Your task to perform on an android device: stop showing notifications on the lock screen Image 0: 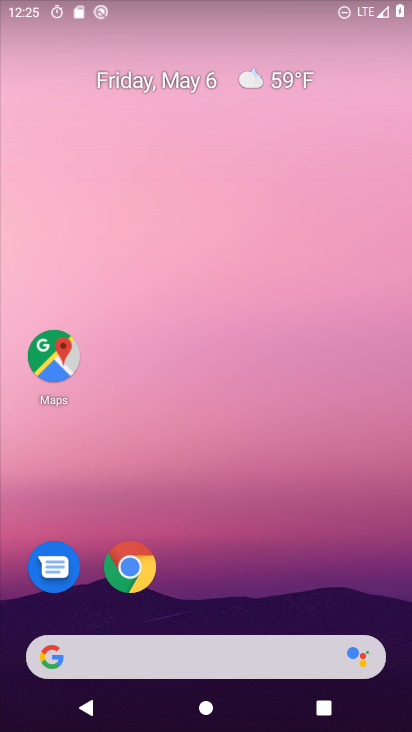
Step 0: drag from (362, 628) to (365, 11)
Your task to perform on an android device: stop showing notifications on the lock screen Image 1: 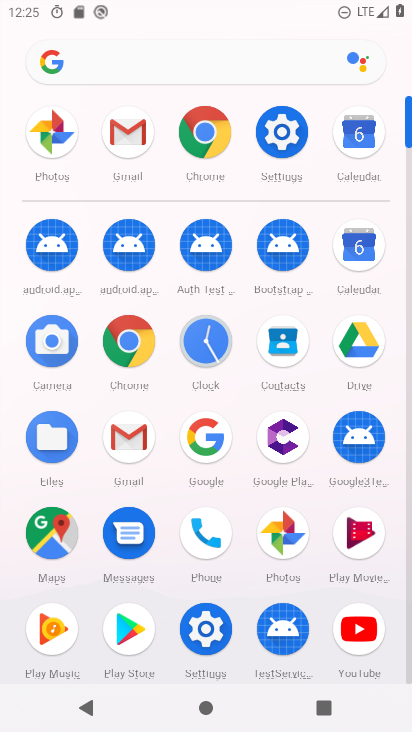
Step 1: click (286, 134)
Your task to perform on an android device: stop showing notifications on the lock screen Image 2: 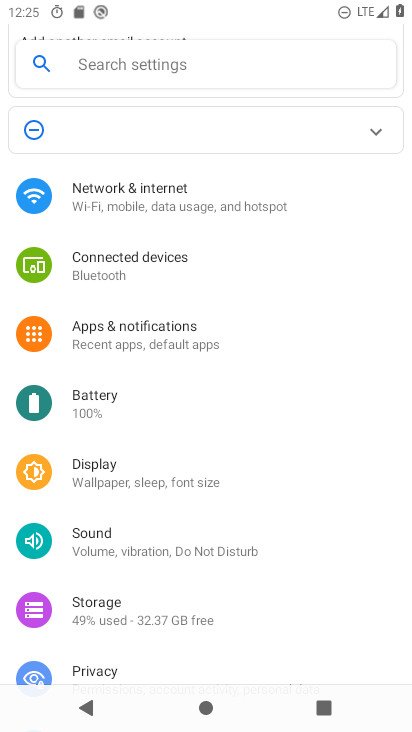
Step 2: click (160, 339)
Your task to perform on an android device: stop showing notifications on the lock screen Image 3: 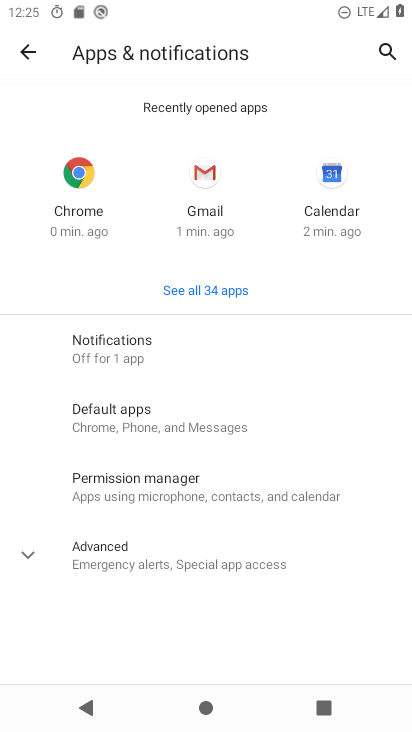
Step 3: click (119, 358)
Your task to perform on an android device: stop showing notifications on the lock screen Image 4: 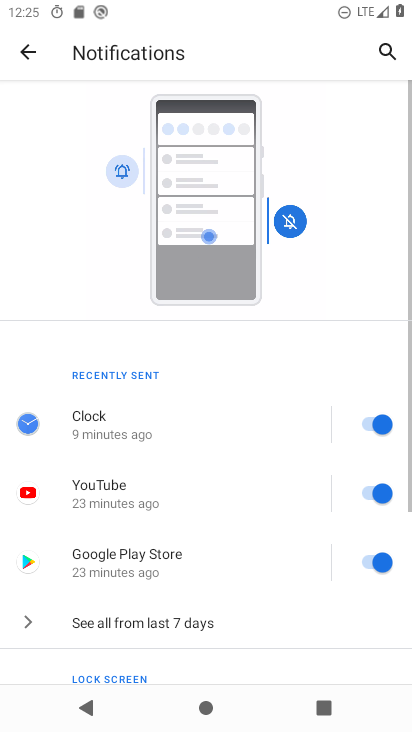
Step 4: drag from (234, 575) to (238, 171)
Your task to perform on an android device: stop showing notifications on the lock screen Image 5: 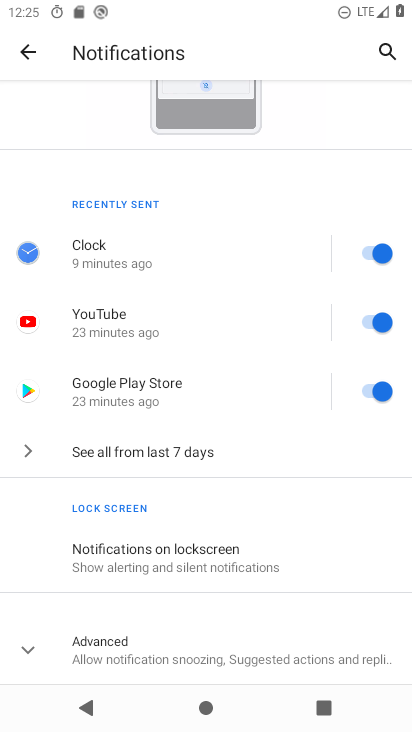
Step 5: click (167, 549)
Your task to perform on an android device: stop showing notifications on the lock screen Image 6: 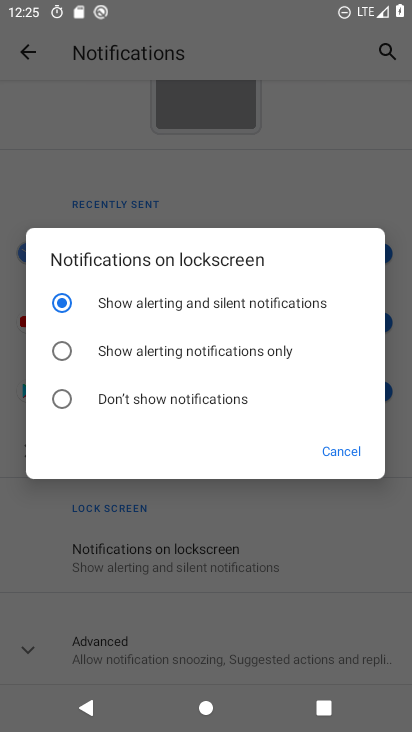
Step 6: click (58, 404)
Your task to perform on an android device: stop showing notifications on the lock screen Image 7: 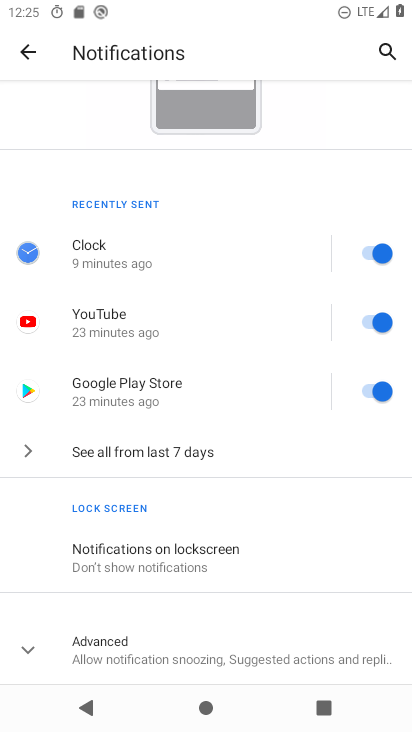
Step 7: task complete